Your task to perform on an android device: Open calendar and show me the second week of next month Image 0: 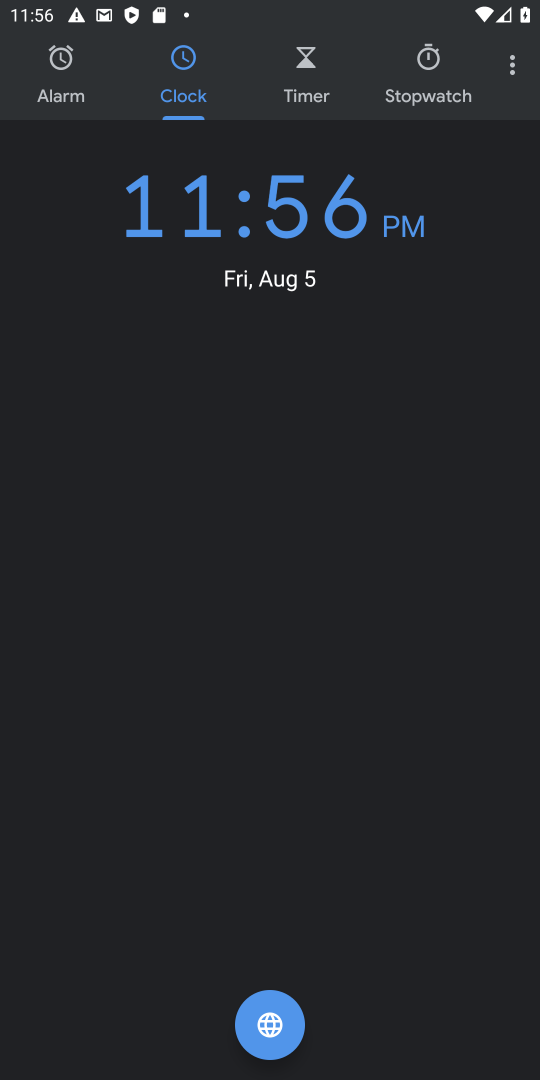
Step 0: press back button
Your task to perform on an android device: Open calendar and show me the second week of next month Image 1: 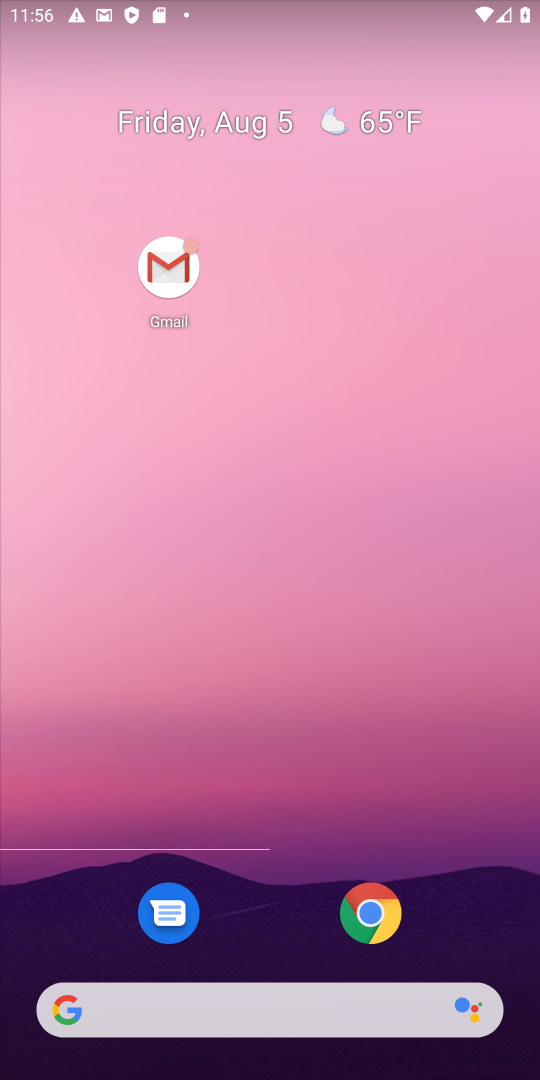
Step 1: drag from (308, 884) to (328, 179)
Your task to perform on an android device: Open calendar and show me the second week of next month Image 2: 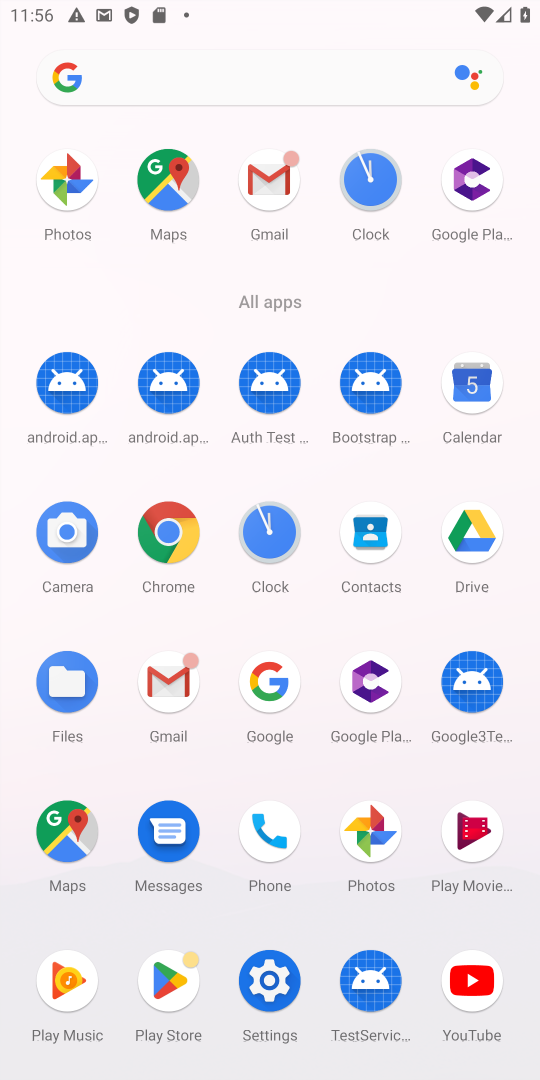
Step 2: drag from (472, 383) to (55, 215)
Your task to perform on an android device: Open calendar and show me the second week of next month Image 3: 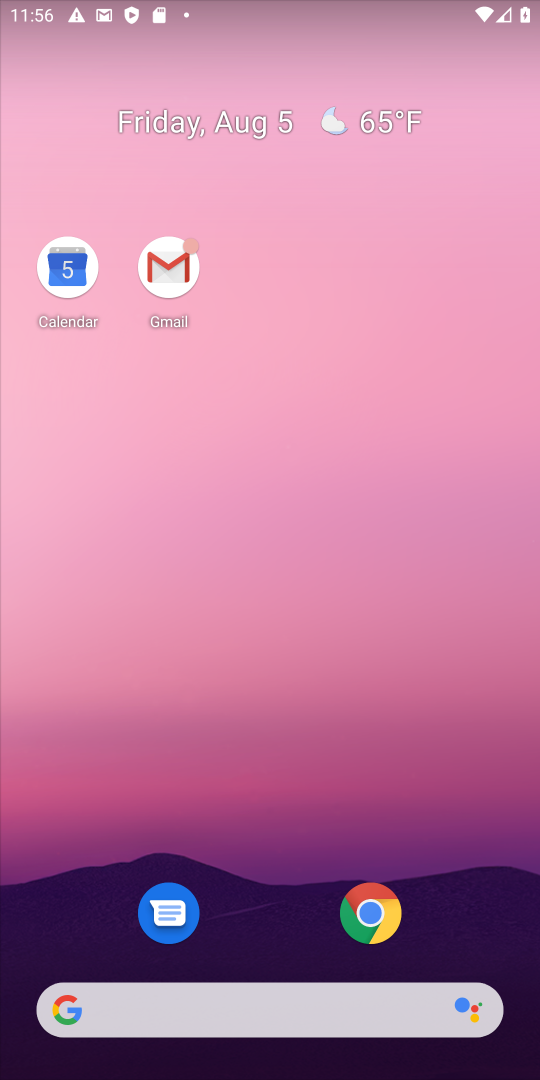
Step 3: click (67, 263)
Your task to perform on an android device: Open calendar and show me the second week of next month Image 4: 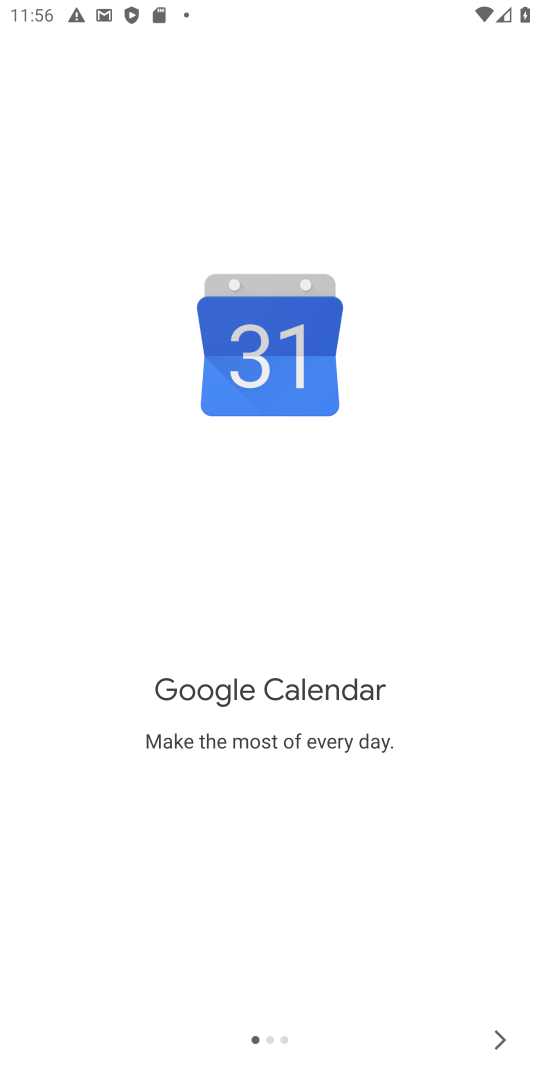
Step 4: click (497, 1028)
Your task to perform on an android device: Open calendar and show me the second week of next month Image 5: 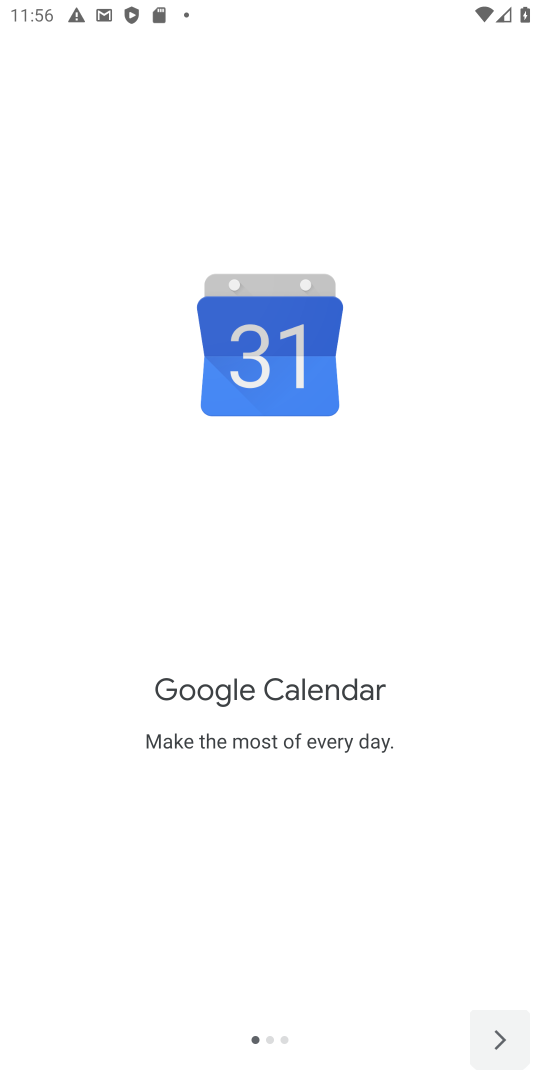
Step 5: click (500, 1037)
Your task to perform on an android device: Open calendar and show me the second week of next month Image 6: 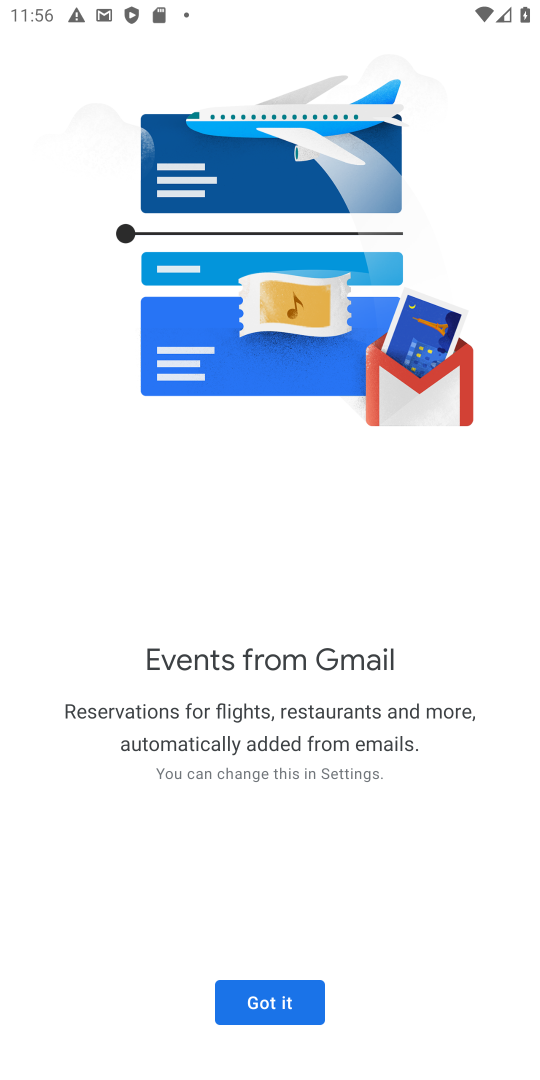
Step 6: click (500, 1037)
Your task to perform on an android device: Open calendar and show me the second week of next month Image 7: 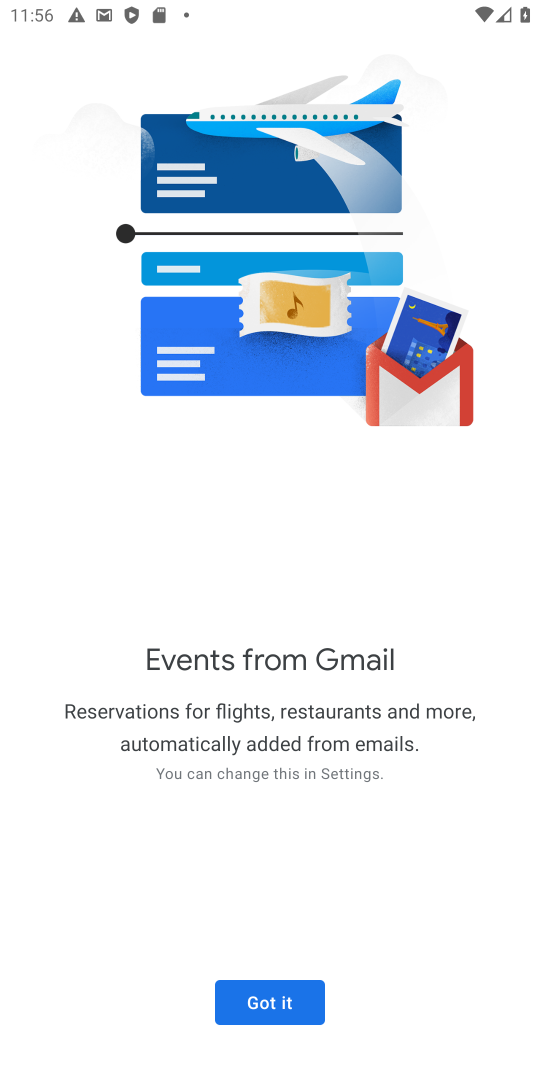
Step 7: click (315, 1002)
Your task to perform on an android device: Open calendar and show me the second week of next month Image 8: 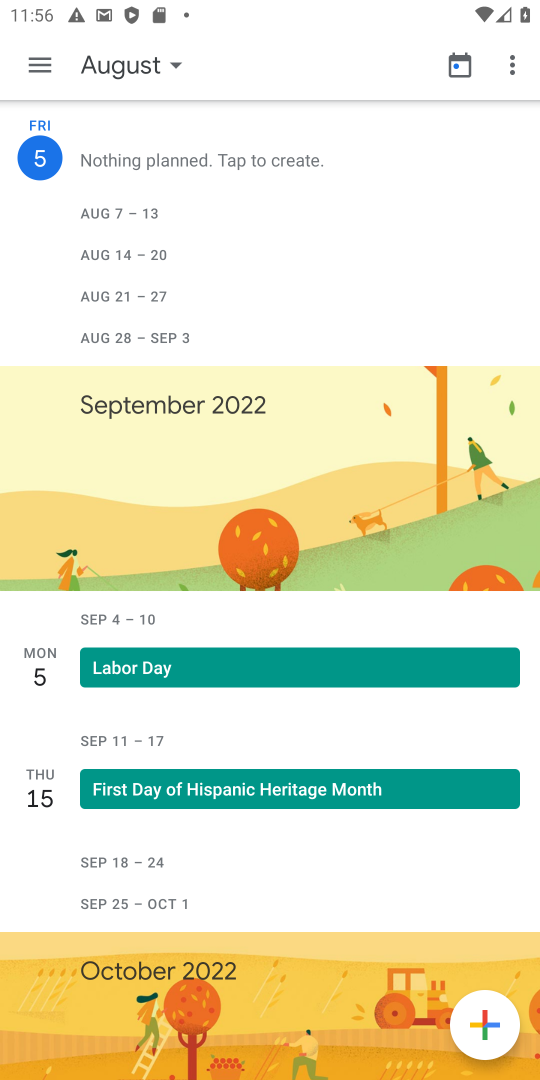
Step 8: click (144, 62)
Your task to perform on an android device: Open calendar and show me the second week of next month Image 9: 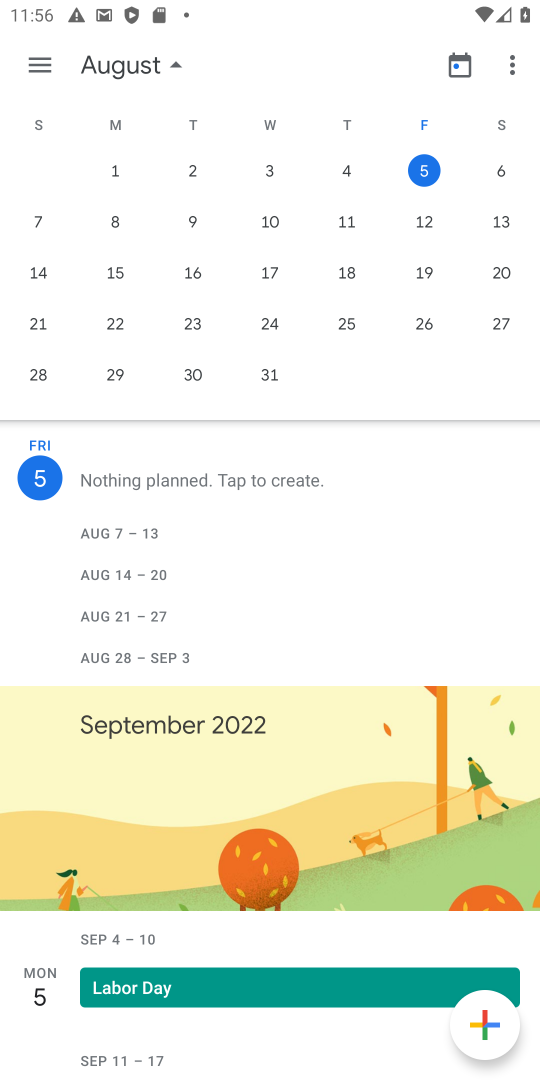
Step 9: drag from (249, 288) to (1, 172)
Your task to perform on an android device: Open calendar and show me the second week of next month Image 10: 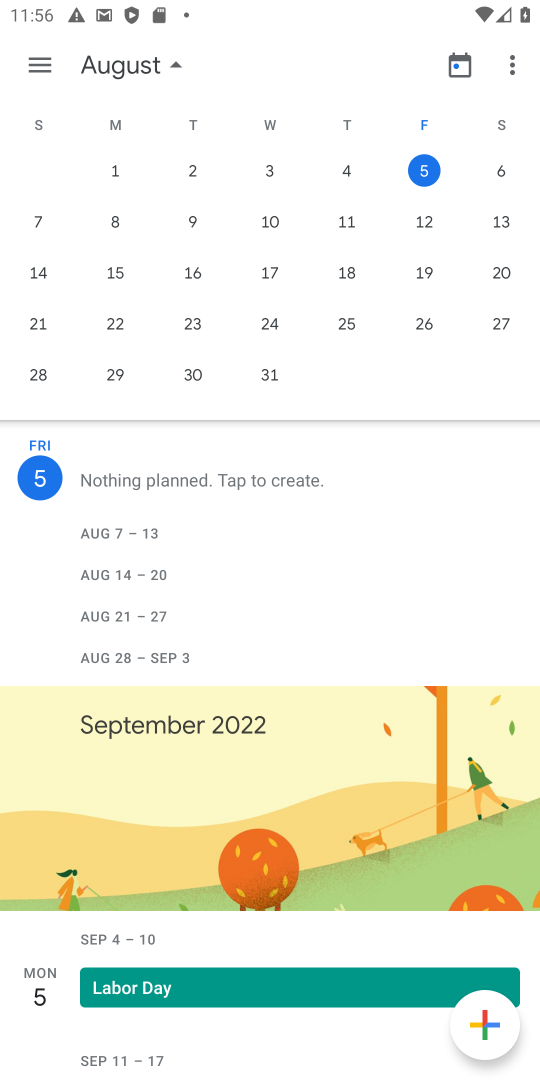
Step 10: drag from (499, 263) to (39, 263)
Your task to perform on an android device: Open calendar and show me the second week of next month Image 11: 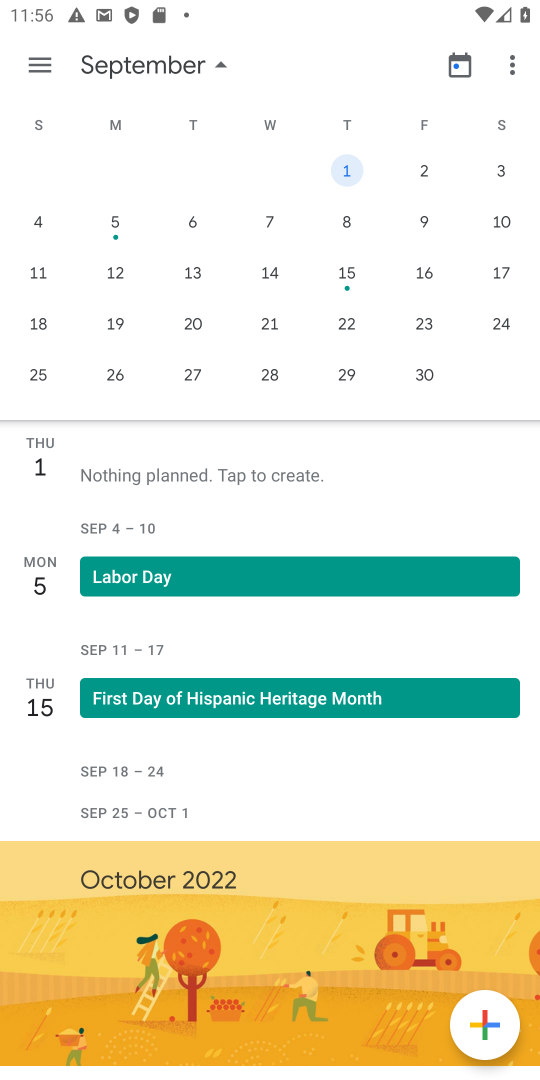
Step 11: click (34, 90)
Your task to perform on an android device: Open calendar and show me the second week of next month Image 12: 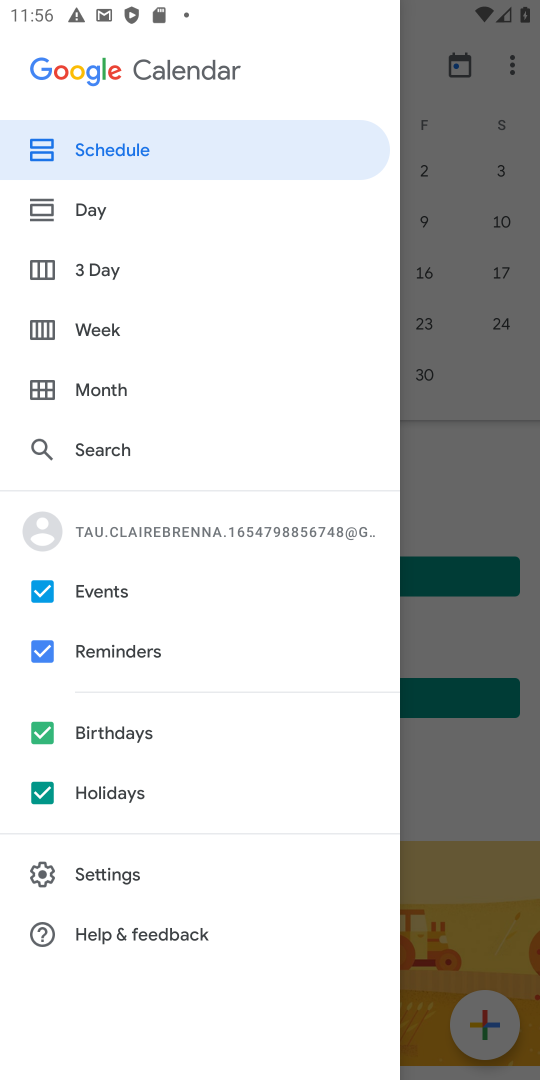
Step 12: click (143, 330)
Your task to perform on an android device: Open calendar and show me the second week of next month Image 13: 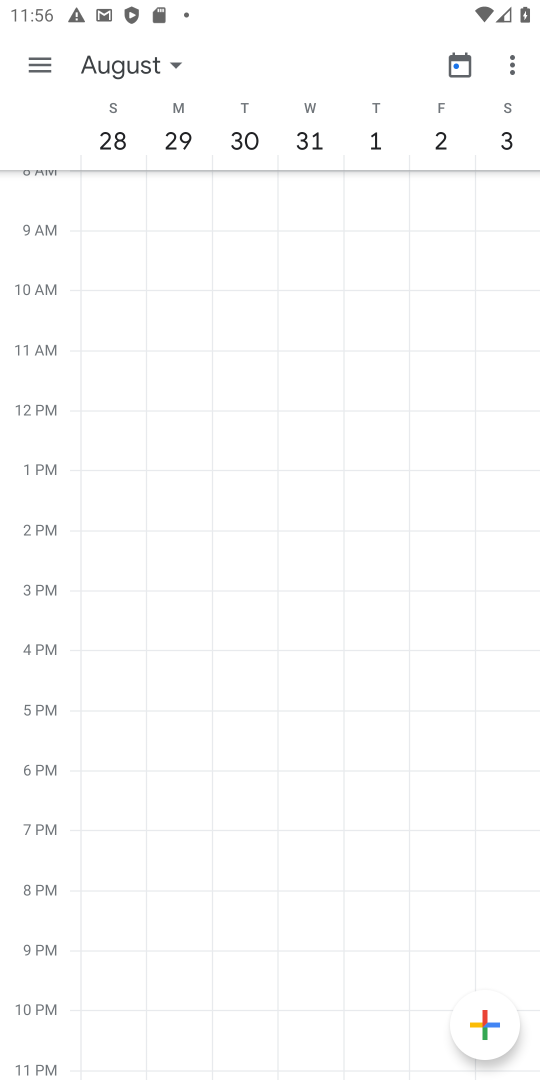
Step 13: task complete